Your task to perform on an android device: Play the last video I watched on Youtube Image 0: 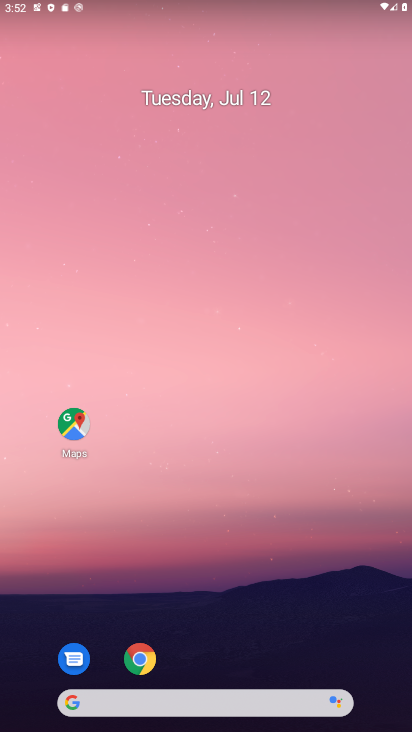
Step 0: drag from (221, 640) to (220, 311)
Your task to perform on an android device: Play the last video I watched on Youtube Image 1: 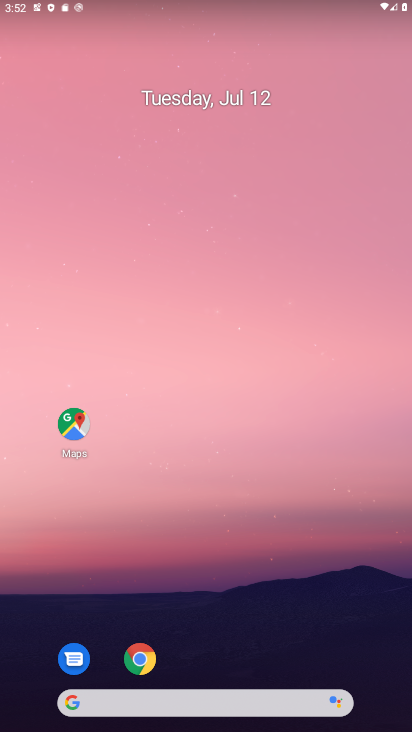
Step 1: drag from (223, 721) to (222, 190)
Your task to perform on an android device: Play the last video I watched on Youtube Image 2: 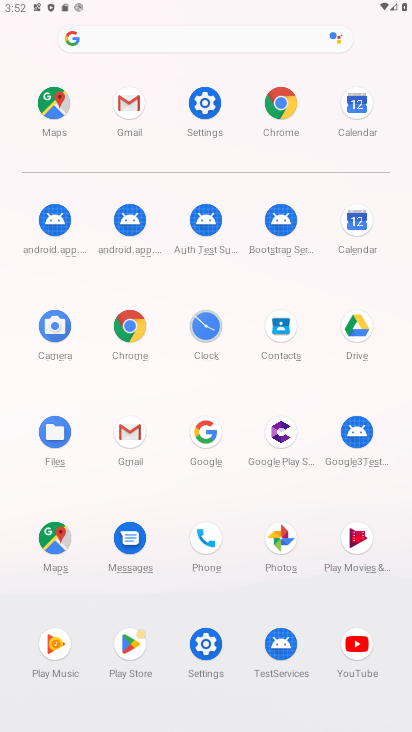
Step 2: click (363, 636)
Your task to perform on an android device: Play the last video I watched on Youtube Image 3: 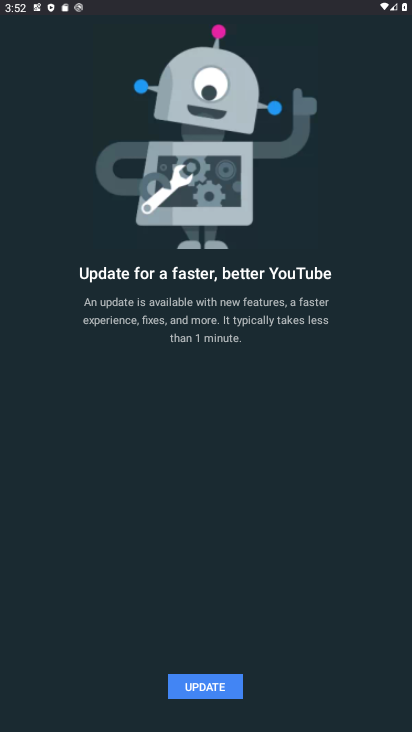
Step 3: task complete